Your task to perform on an android device: When is my next appointment? Image 0: 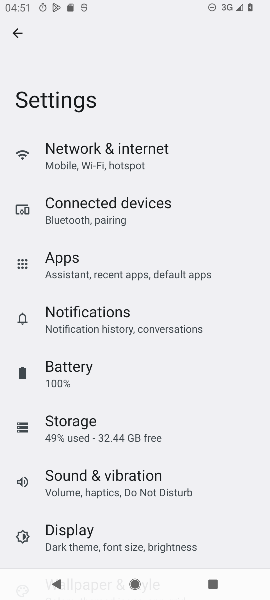
Step 0: press home button
Your task to perform on an android device: When is my next appointment? Image 1: 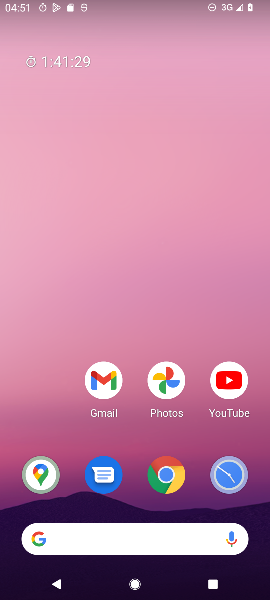
Step 1: drag from (64, 429) to (71, 206)
Your task to perform on an android device: When is my next appointment? Image 2: 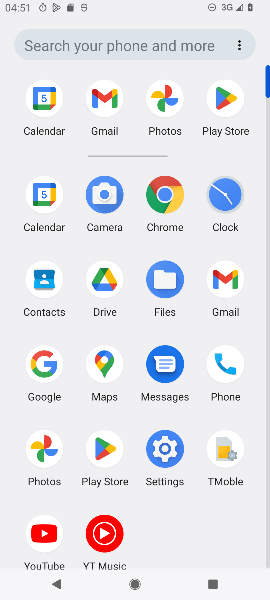
Step 2: click (42, 197)
Your task to perform on an android device: When is my next appointment? Image 3: 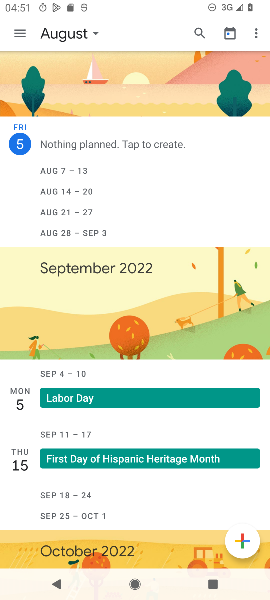
Step 3: task complete